Your task to perform on an android device: Open Google Image 0: 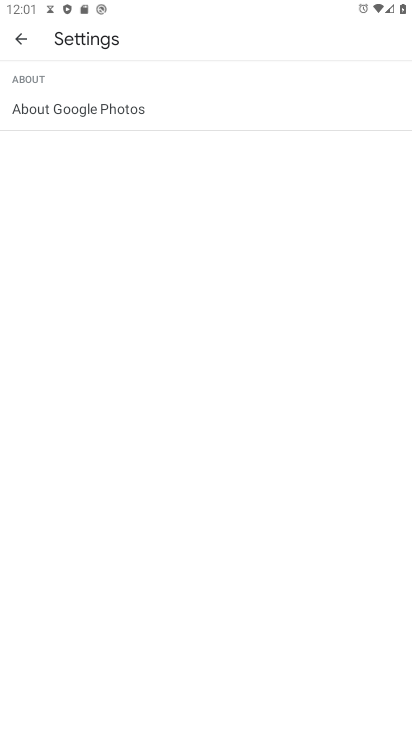
Step 0: press home button
Your task to perform on an android device: Open Google Image 1: 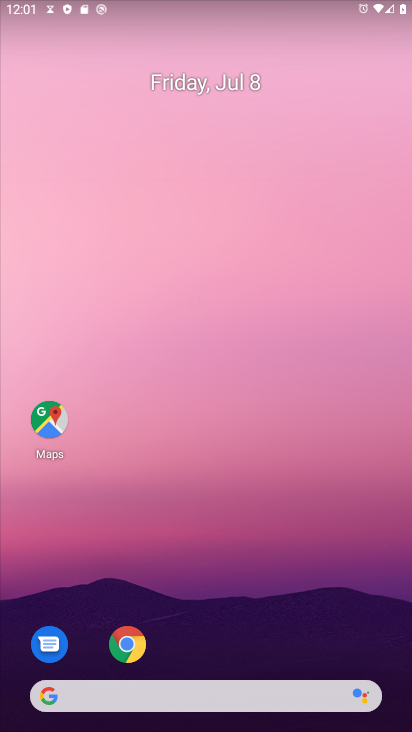
Step 1: click (108, 699)
Your task to perform on an android device: Open Google Image 2: 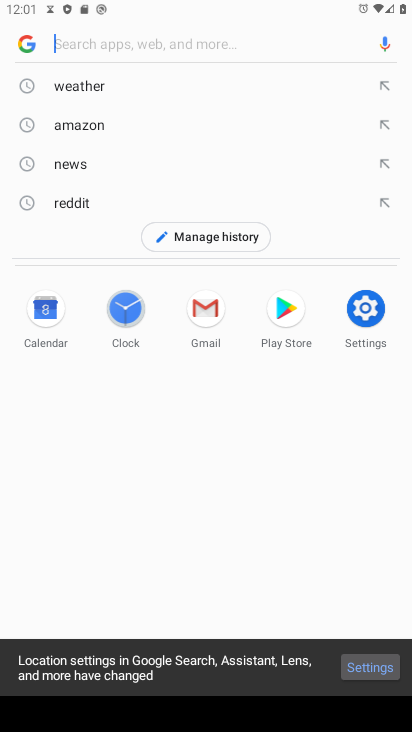
Step 2: click (28, 42)
Your task to perform on an android device: Open Google Image 3: 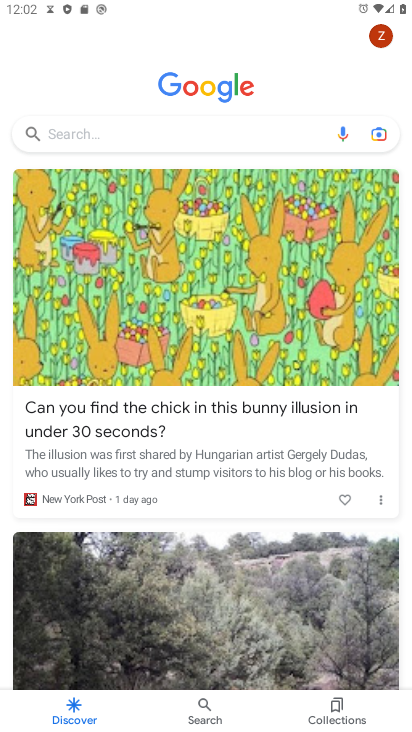
Step 3: task complete